Your task to perform on an android device: Open Amazon Image 0: 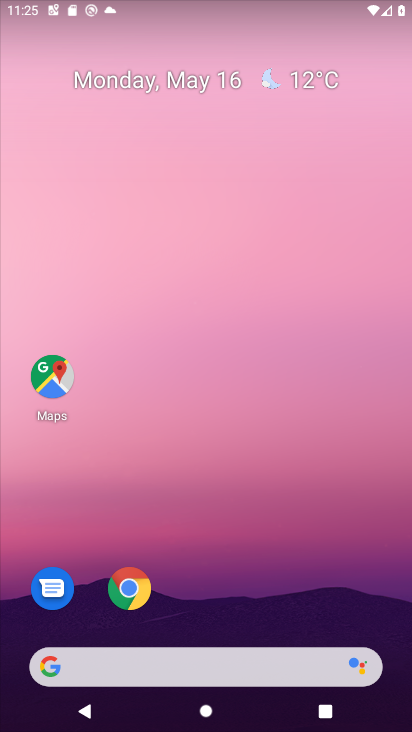
Step 0: press home button
Your task to perform on an android device: Open Amazon Image 1: 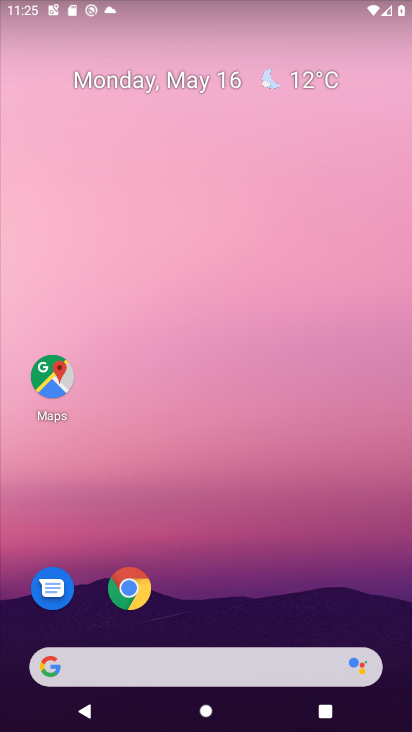
Step 1: click (128, 584)
Your task to perform on an android device: Open Amazon Image 2: 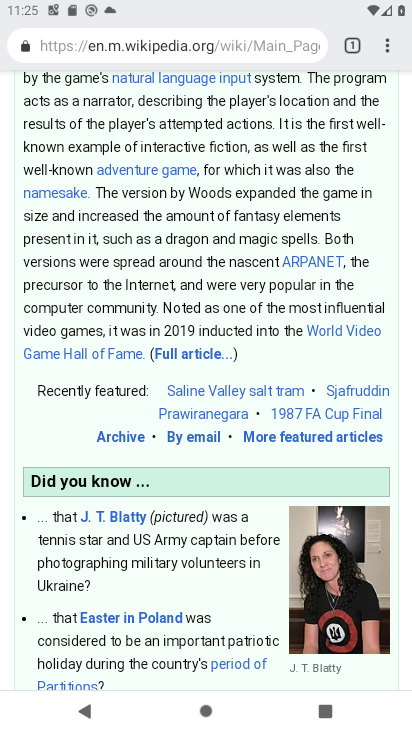
Step 2: click (354, 45)
Your task to perform on an android device: Open Amazon Image 3: 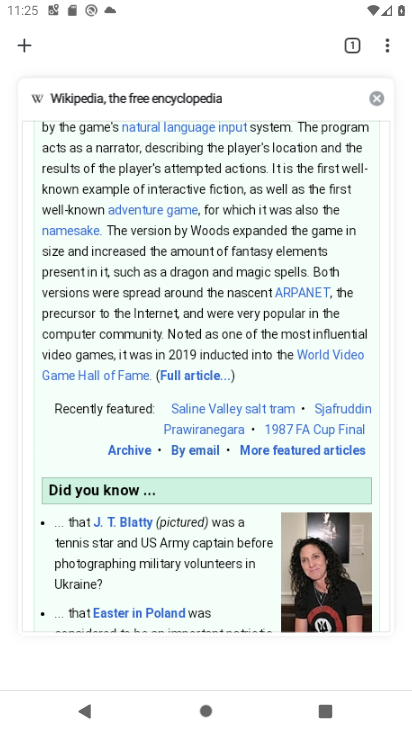
Step 3: click (380, 94)
Your task to perform on an android device: Open Amazon Image 4: 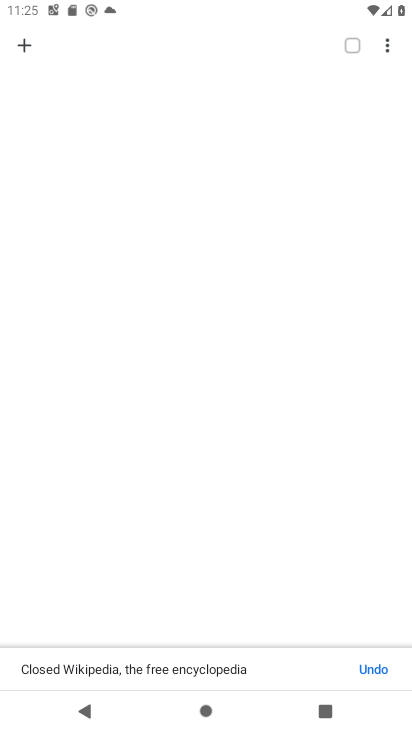
Step 4: click (22, 48)
Your task to perform on an android device: Open Amazon Image 5: 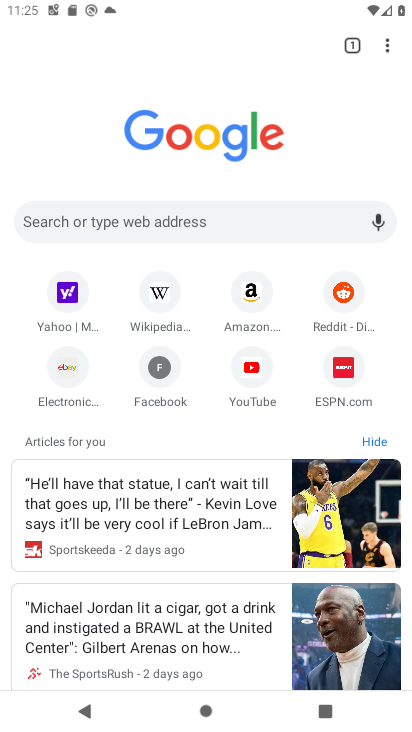
Step 5: click (247, 280)
Your task to perform on an android device: Open Amazon Image 6: 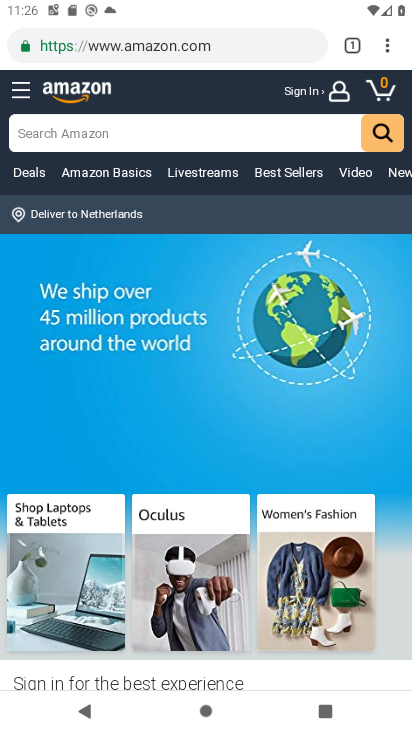
Step 6: task complete